Your task to perform on an android device: toggle wifi Image 0: 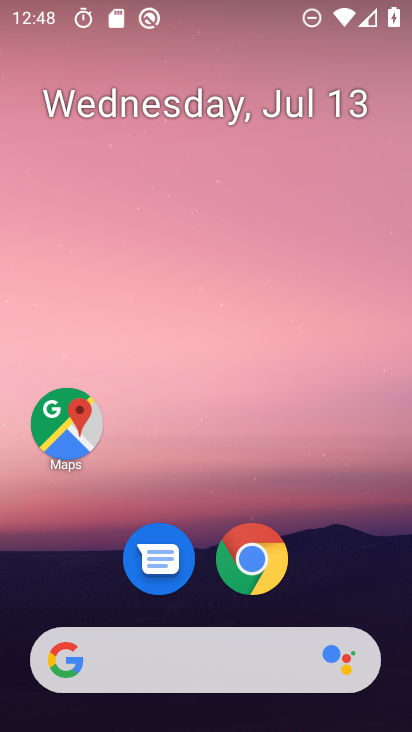
Step 0: drag from (178, 479) to (294, 43)
Your task to perform on an android device: toggle wifi Image 1: 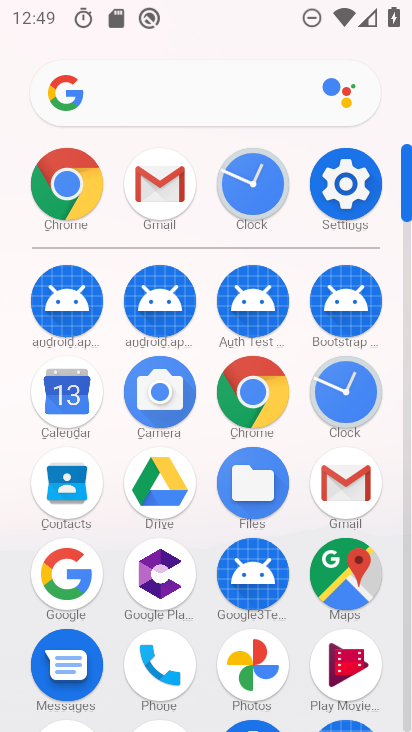
Step 1: click (338, 200)
Your task to perform on an android device: toggle wifi Image 2: 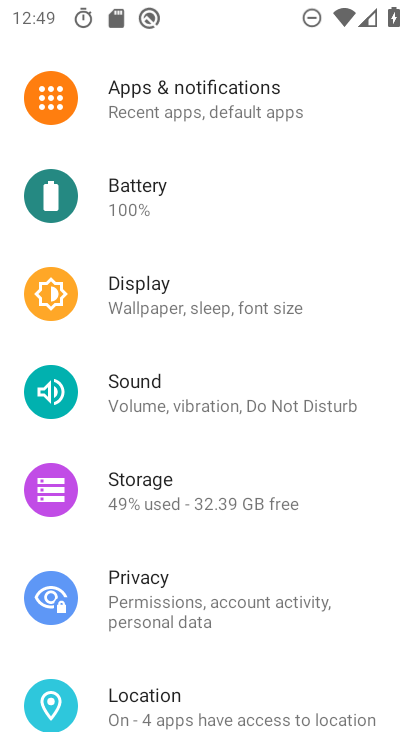
Step 2: drag from (201, 293) to (157, 623)
Your task to perform on an android device: toggle wifi Image 3: 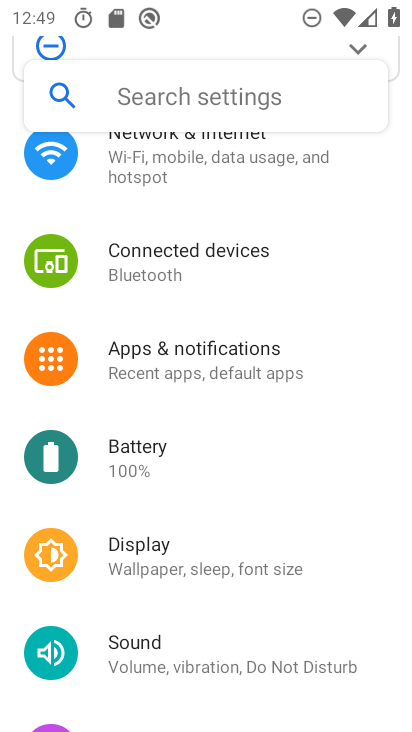
Step 3: drag from (236, 311) to (186, 645)
Your task to perform on an android device: toggle wifi Image 4: 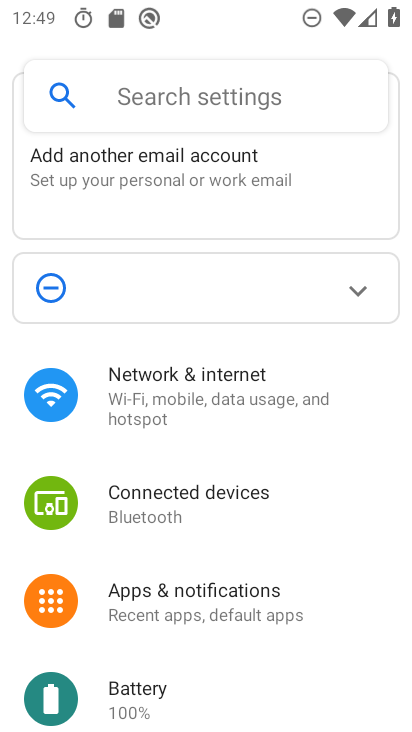
Step 4: click (231, 403)
Your task to perform on an android device: toggle wifi Image 5: 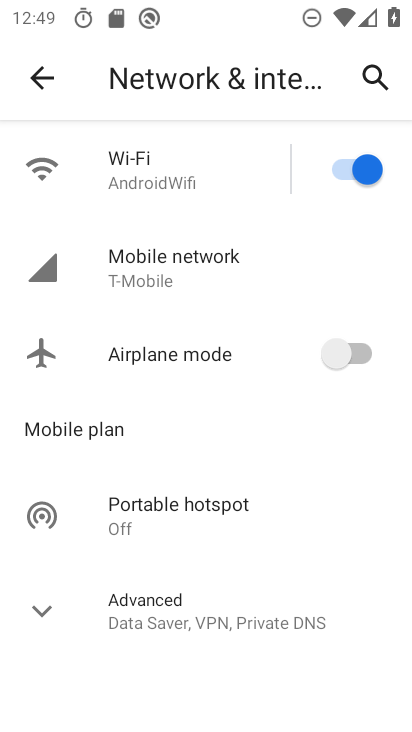
Step 5: click (351, 170)
Your task to perform on an android device: toggle wifi Image 6: 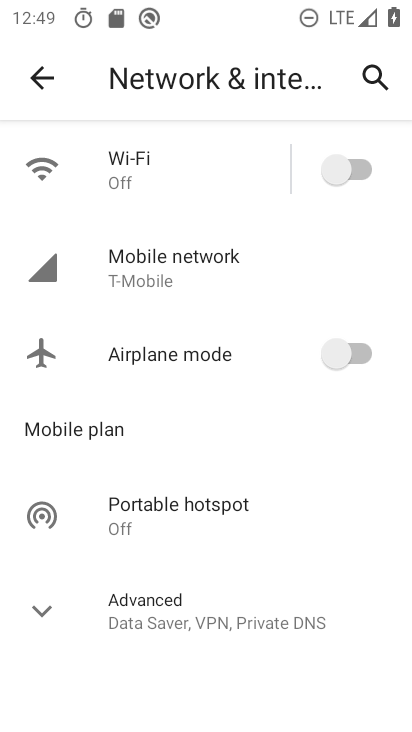
Step 6: task complete